Your task to perform on an android device: toggle data saver in the chrome app Image 0: 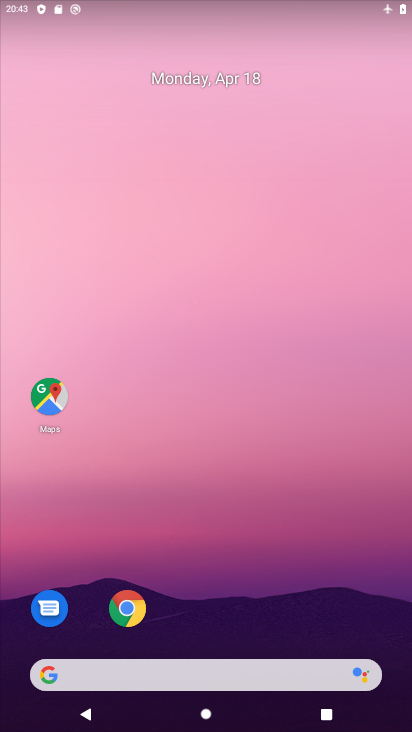
Step 0: click (127, 605)
Your task to perform on an android device: toggle data saver in the chrome app Image 1: 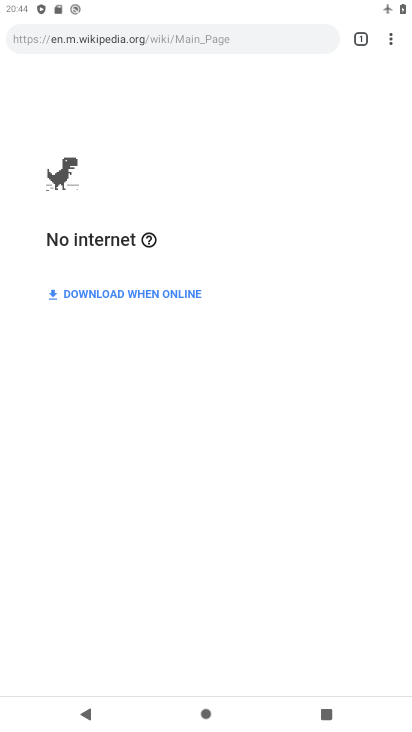
Step 1: click (390, 37)
Your task to perform on an android device: toggle data saver in the chrome app Image 2: 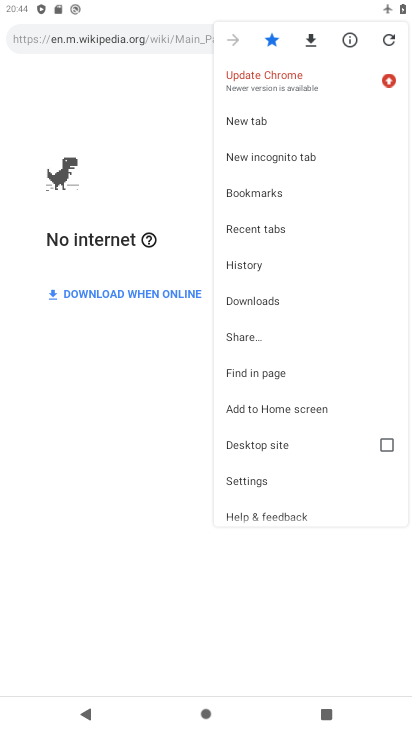
Step 2: click (245, 486)
Your task to perform on an android device: toggle data saver in the chrome app Image 3: 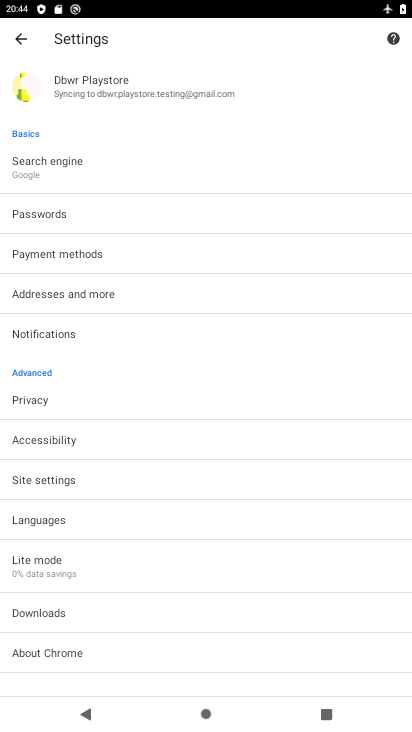
Step 3: click (98, 574)
Your task to perform on an android device: toggle data saver in the chrome app Image 4: 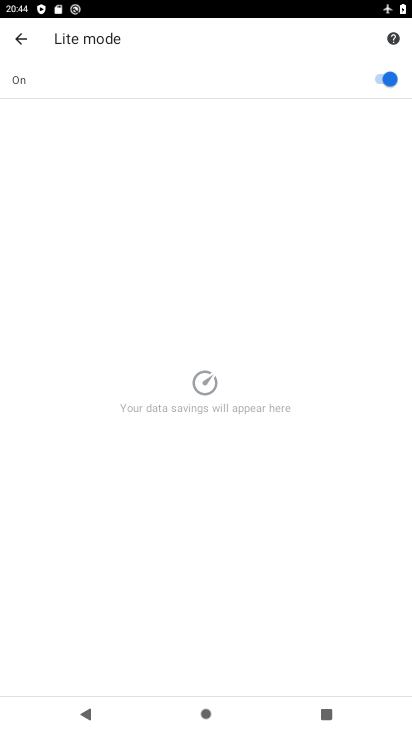
Step 4: click (386, 68)
Your task to perform on an android device: toggle data saver in the chrome app Image 5: 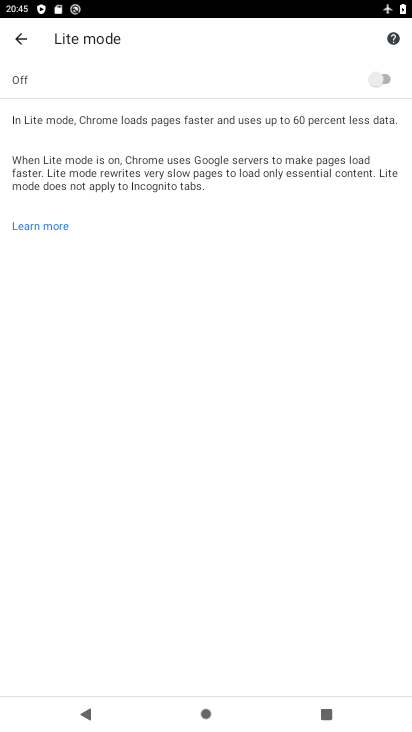
Step 5: task complete